Your task to perform on an android device: see sites visited before in the chrome app Image 0: 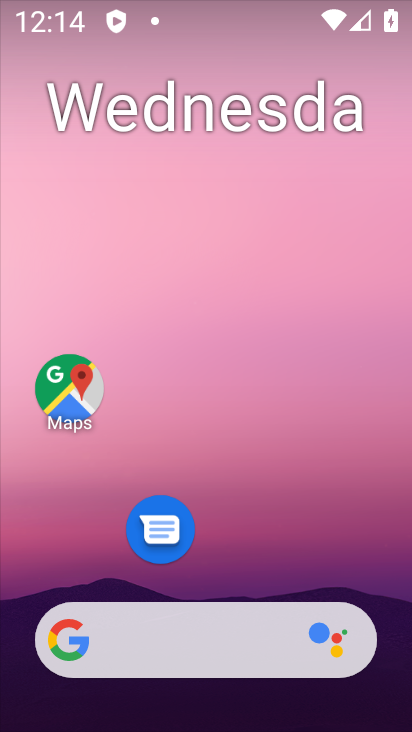
Step 0: drag from (246, 609) to (300, 16)
Your task to perform on an android device: see sites visited before in the chrome app Image 1: 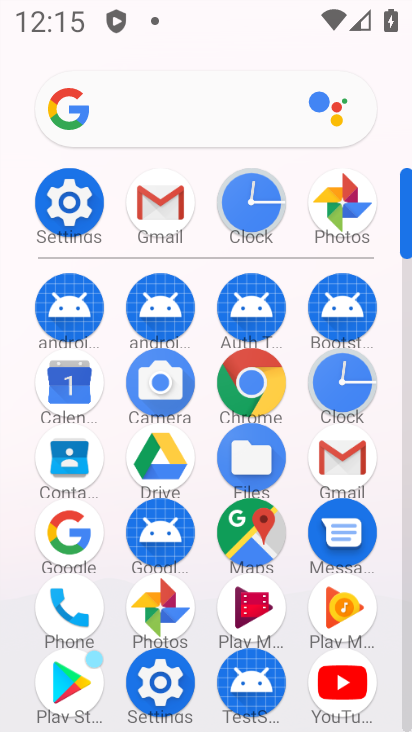
Step 1: click (258, 379)
Your task to perform on an android device: see sites visited before in the chrome app Image 2: 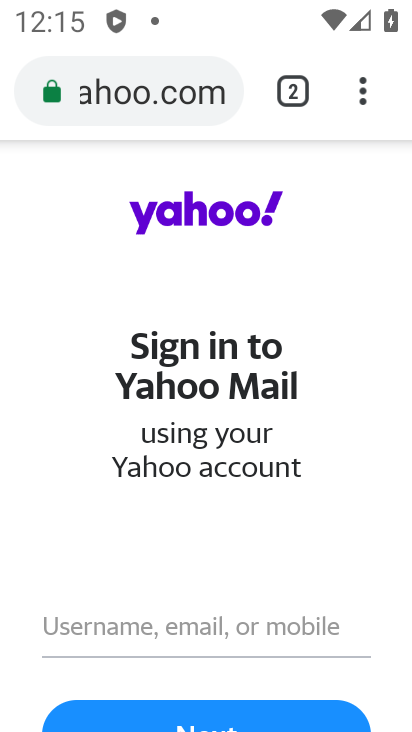
Step 2: click (280, 99)
Your task to perform on an android device: see sites visited before in the chrome app Image 3: 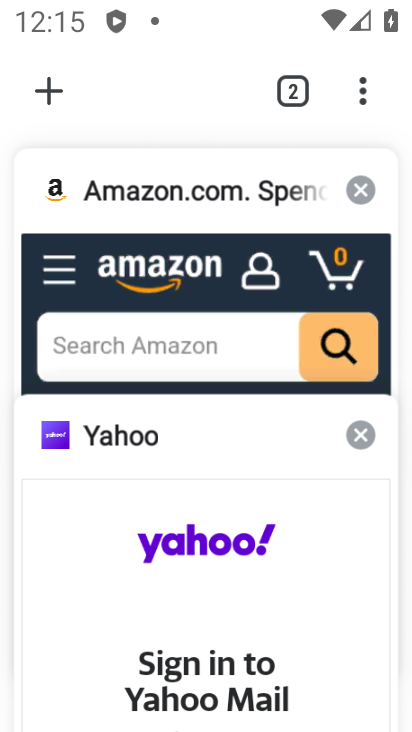
Step 3: task complete